Your task to perform on an android device: set the timer Image 0: 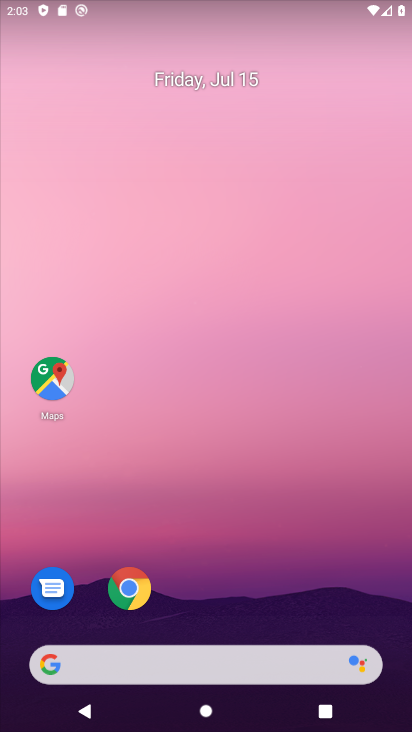
Step 0: drag from (174, 663) to (294, 265)
Your task to perform on an android device: set the timer Image 1: 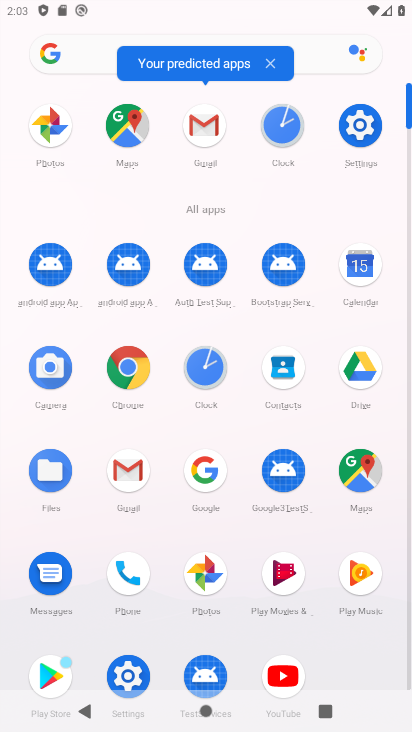
Step 1: click (205, 365)
Your task to perform on an android device: set the timer Image 2: 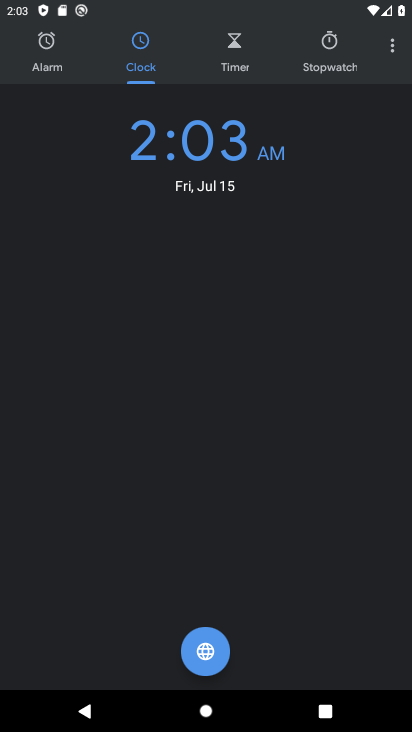
Step 2: click (238, 62)
Your task to perform on an android device: set the timer Image 3: 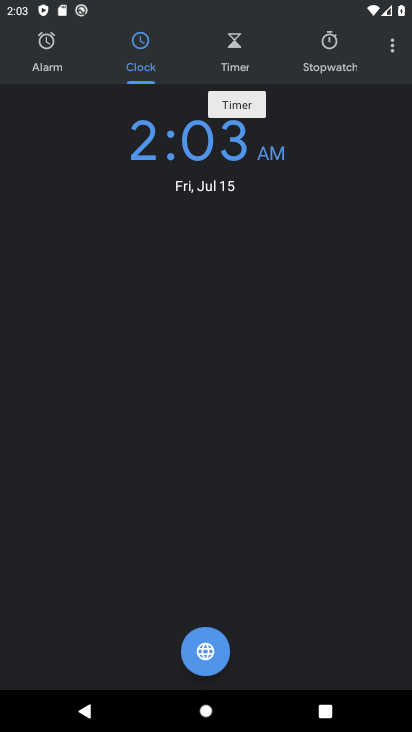
Step 3: click (230, 71)
Your task to perform on an android device: set the timer Image 4: 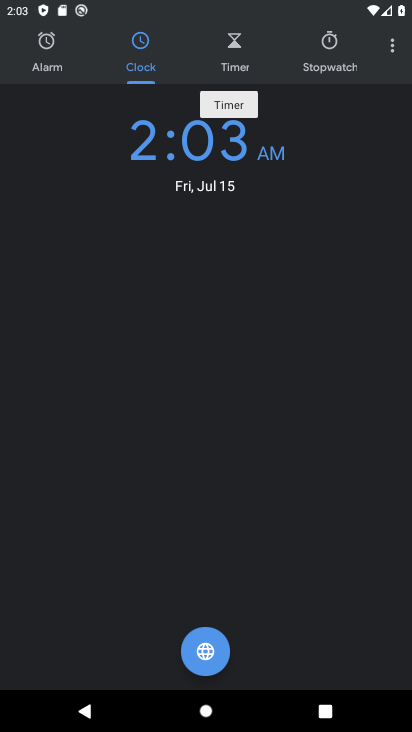
Step 4: click (238, 44)
Your task to perform on an android device: set the timer Image 5: 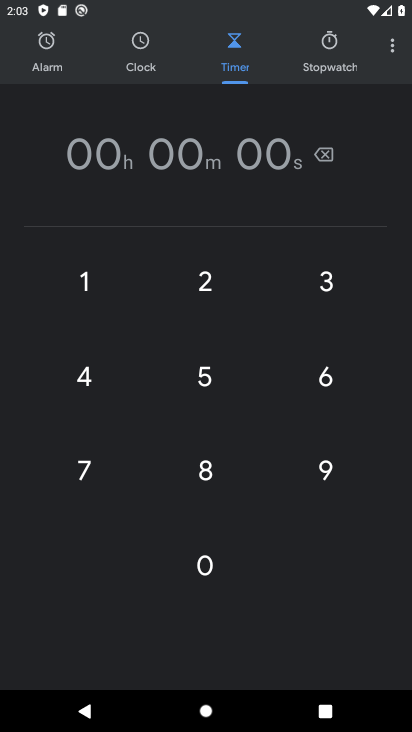
Step 5: click (208, 374)
Your task to perform on an android device: set the timer Image 6: 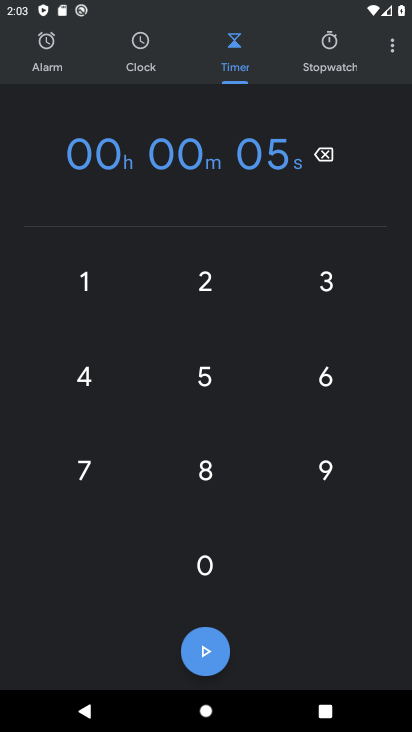
Step 6: click (210, 471)
Your task to perform on an android device: set the timer Image 7: 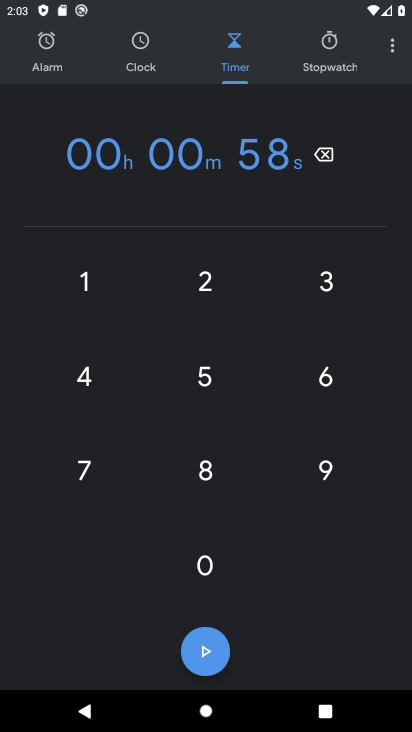
Step 7: click (205, 660)
Your task to perform on an android device: set the timer Image 8: 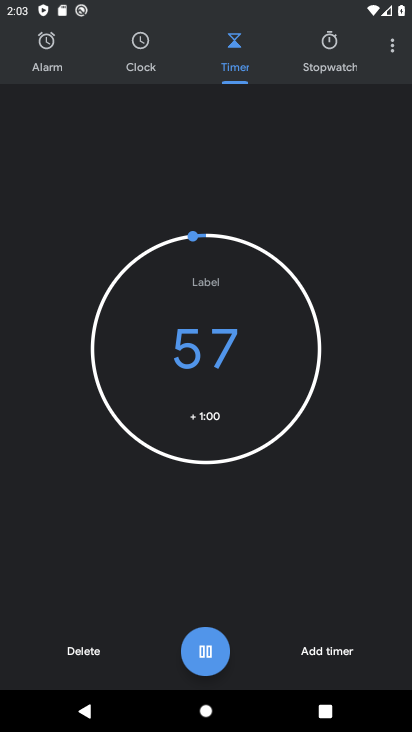
Step 8: click (205, 660)
Your task to perform on an android device: set the timer Image 9: 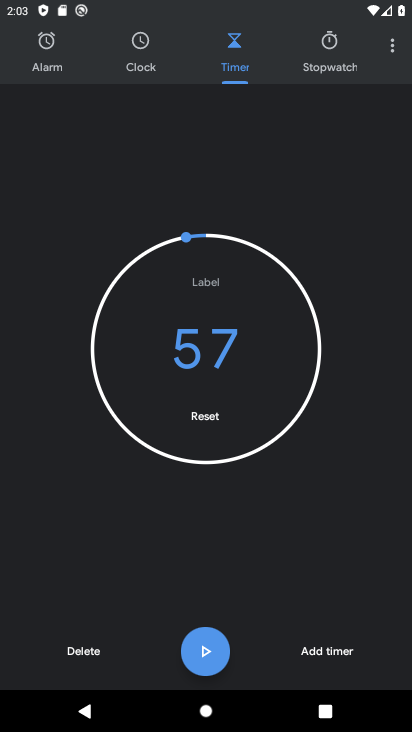
Step 9: task complete